Your task to perform on an android device: see creations saved in the google photos Image 0: 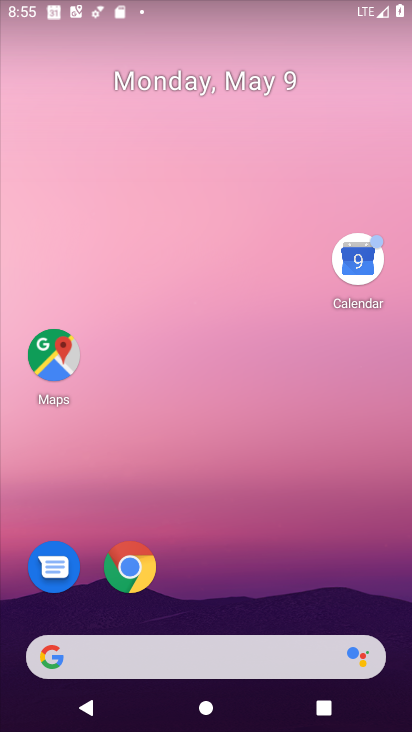
Step 0: drag from (199, 605) to (217, 192)
Your task to perform on an android device: see creations saved in the google photos Image 1: 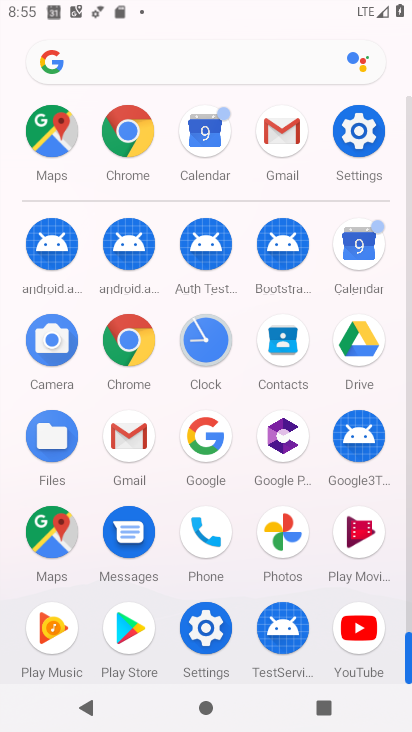
Step 1: click (274, 526)
Your task to perform on an android device: see creations saved in the google photos Image 2: 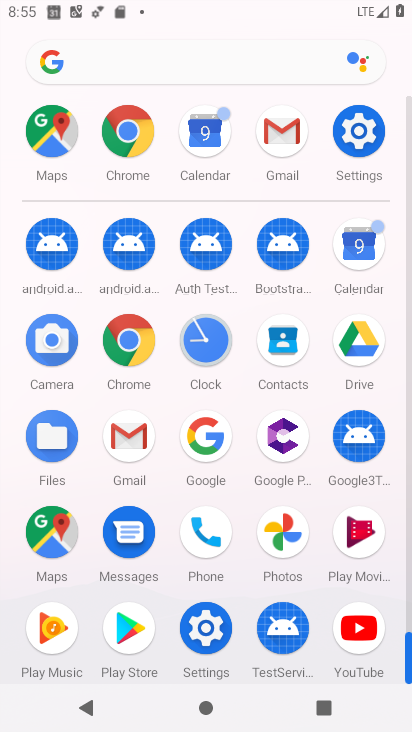
Step 2: click (273, 525)
Your task to perform on an android device: see creations saved in the google photos Image 3: 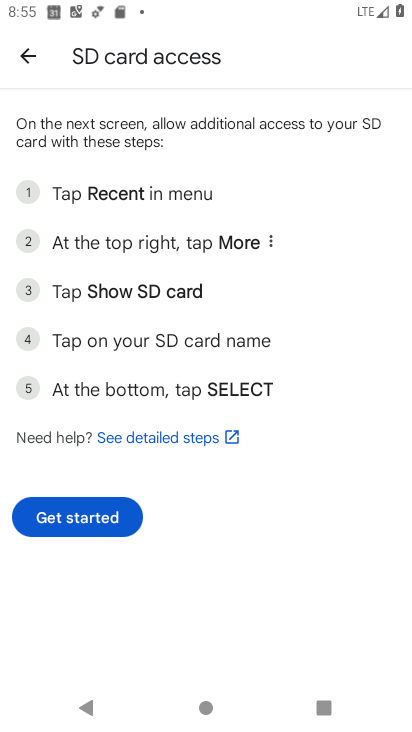
Step 3: click (18, 59)
Your task to perform on an android device: see creations saved in the google photos Image 4: 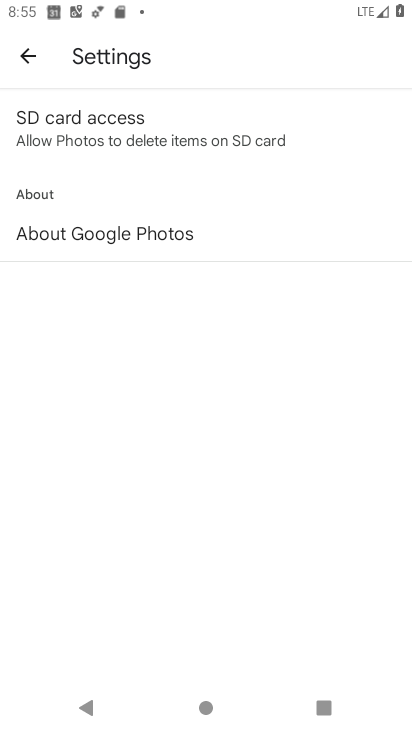
Step 4: click (18, 59)
Your task to perform on an android device: see creations saved in the google photos Image 5: 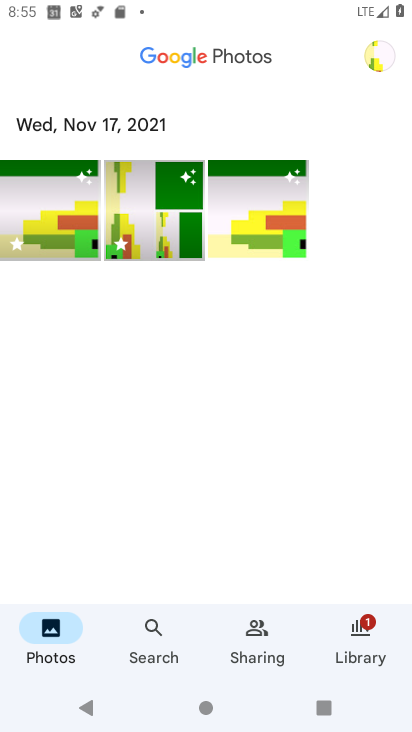
Step 5: click (155, 606)
Your task to perform on an android device: see creations saved in the google photos Image 6: 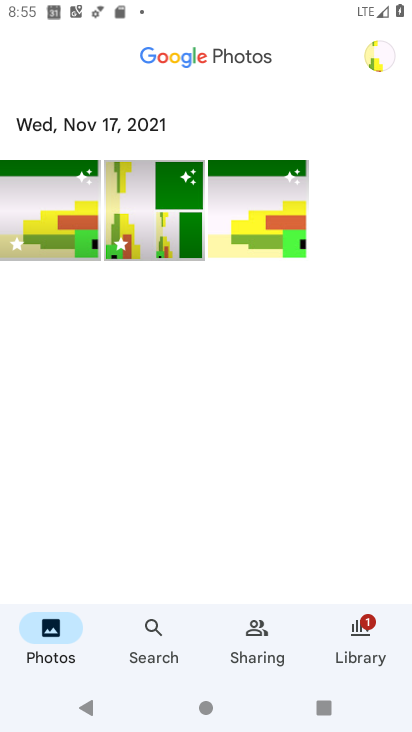
Step 6: click (157, 622)
Your task to perform on an android device: see creations saved in the google photos Image 7: 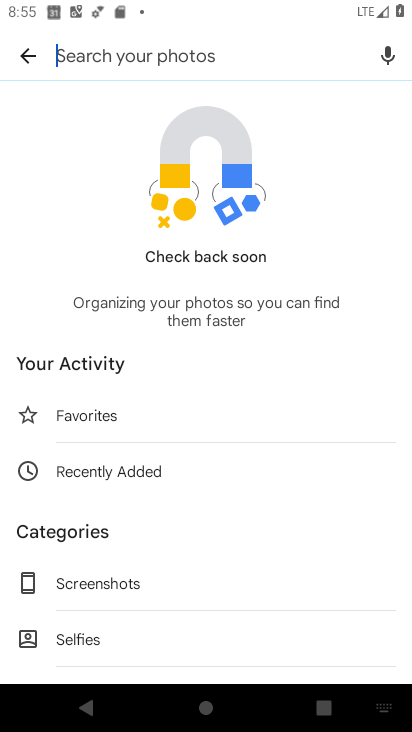
Step 7: drag from (165, 517) to (204, 208)
Your task to perform on an android device: see creations saved in the google photos Image 8: 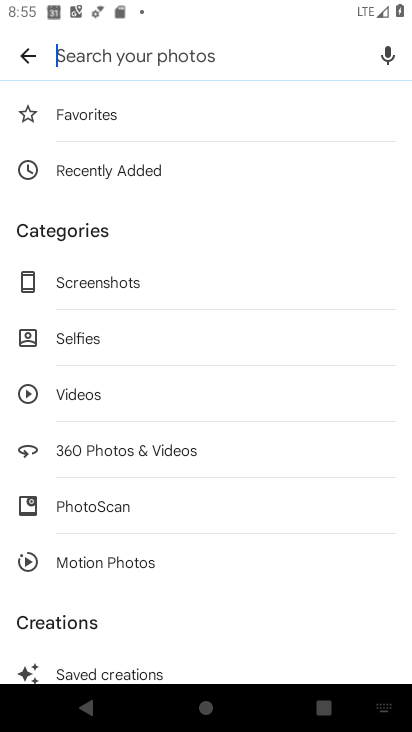
Step 8: drag from (145, 631) to (226, 232)
Your task to perform on an android device: see creations saved in the google photos Image 9: 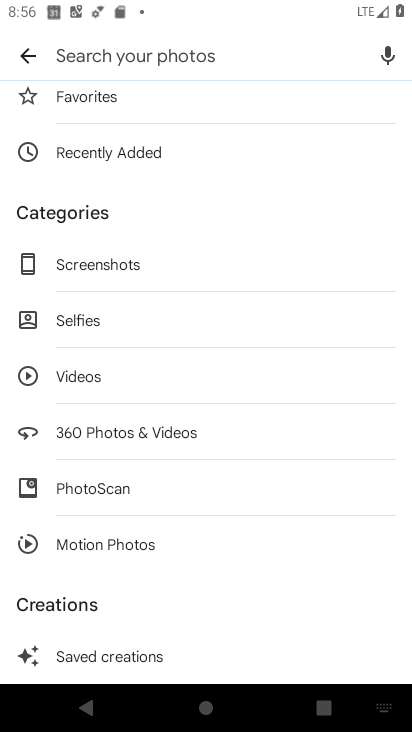
Step 9: drag from (167, 534) to (194, 237)
Your task to perform on an android device: see creations saved in the google photos Image 10: 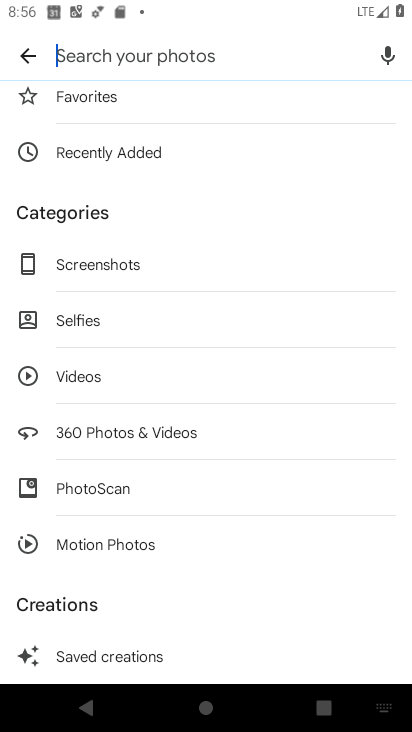
Step 10: click (102, 650)
Your task to perform on an android device: see creations saved in the google photos Image 11: 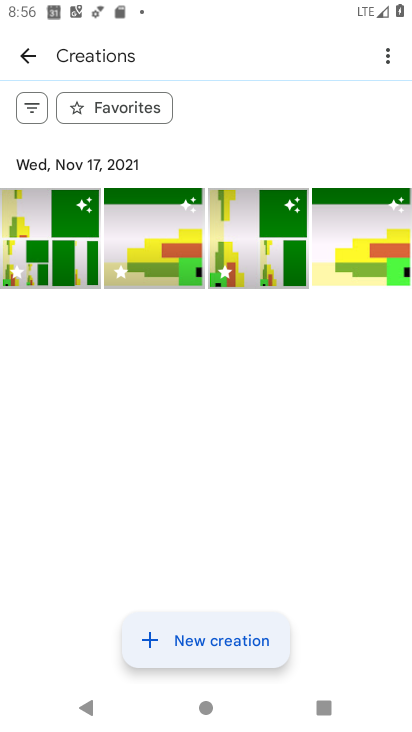
Step 11: drag from (126, 589) to (187, 281)
Your task to perform on an android device: see creations saved in the google photos Image 12: 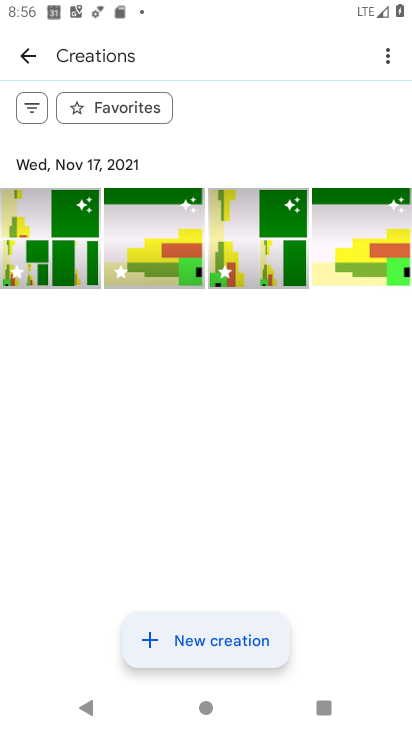
Step 12: click (146, 233)
Your task to perform on an android device: see creations saved in the google photos Image 13: 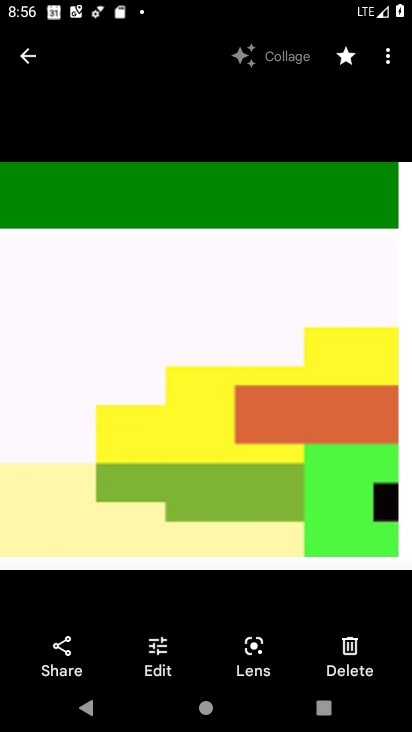
Step 13: task complete